Your task to perform on an android device: Open Google Chrome and open the bookmarks view Image 0: 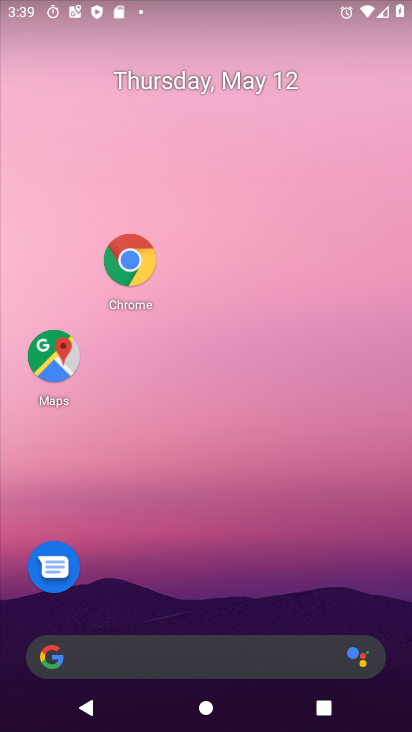
Step 0: click (143, 254)
Your task to perform on an android device: Open Google Chrome and open the bookmarks view Image 1: 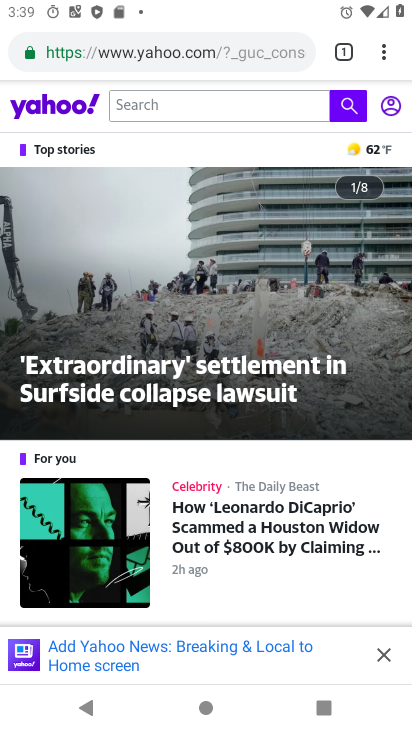
Step 1: click (386, 54)
Your task to perform on an android device: Open Google Chrome and open the bookmarks view Image 2: 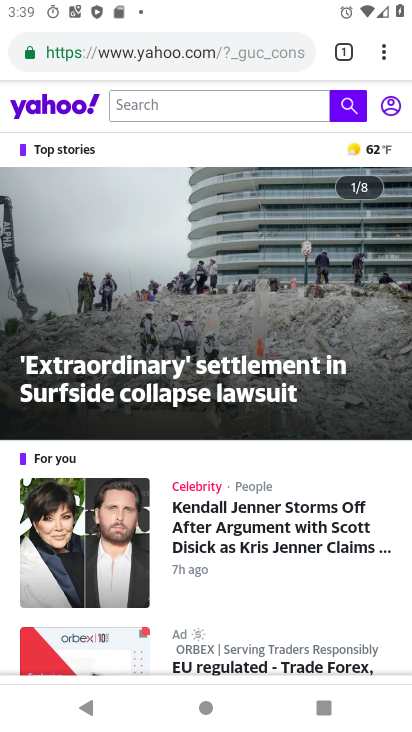
Step 2: click (391, 58)
Your task to perform on an android device: Open Google Chrome and open the bookmarks view Image 3: 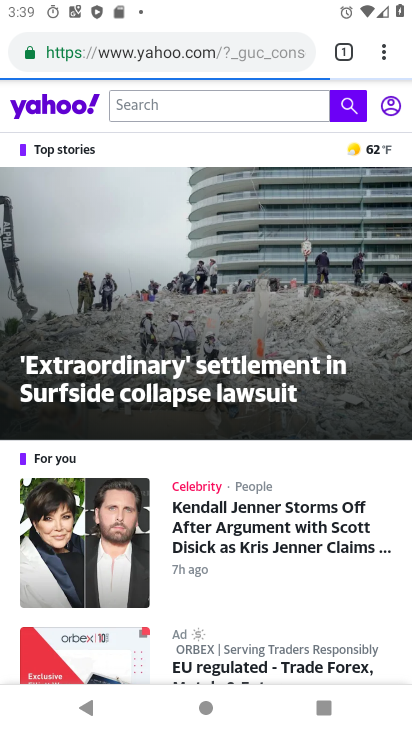
Step 3: click (392, 60)
Your task to perform on an android device: Open Google Chrome and open the bookmarks view Image 4: 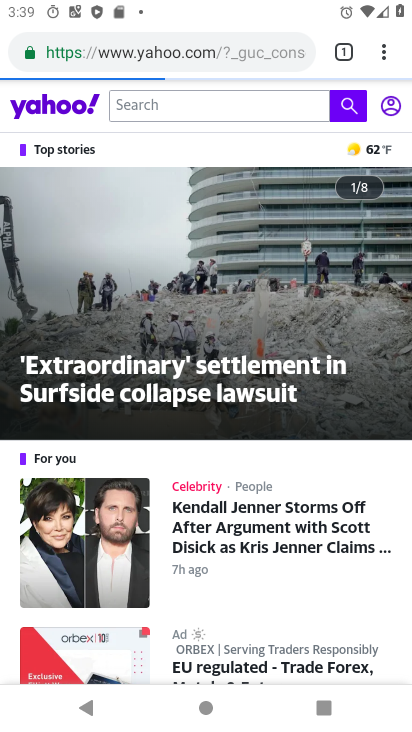
Step 4: click (390, 49)
Your task to perform on an android device: Open Google Chrome and open the bookmarks view Image 5: 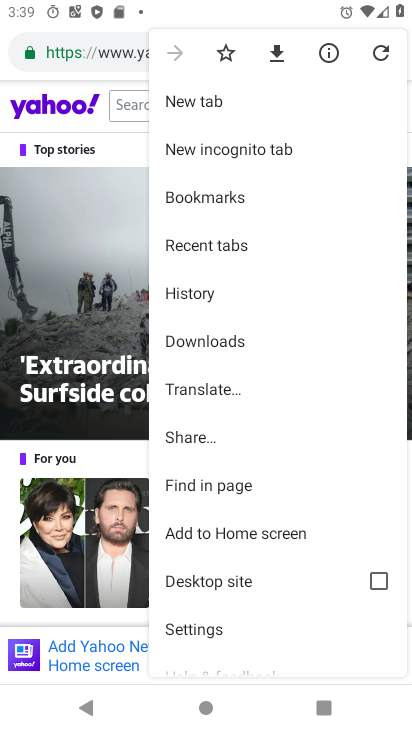
Step 5: click (211, 195)
Your task to perform on an android device: Open Google Chrome and open the bookmarks view Image 6: 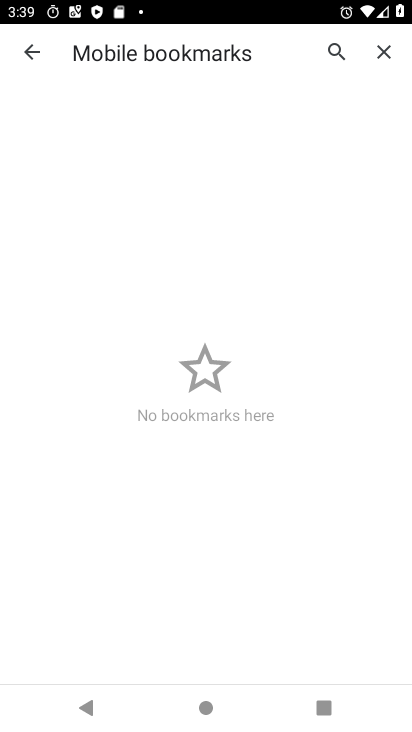
Step 6: task complete